Your task to perform on an android device: toggle notifications settings in the gmail app Image 0: 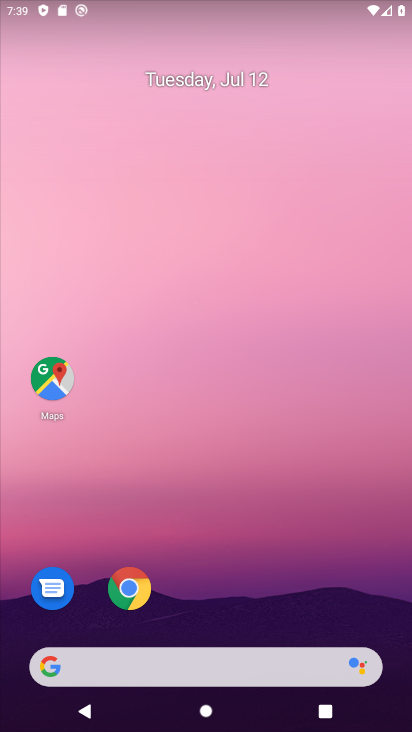
Step 0: drag from (258, 581) to (287, 90)
Your task to perform on an android device: toggle notifications settings in the gmail app Image 1: 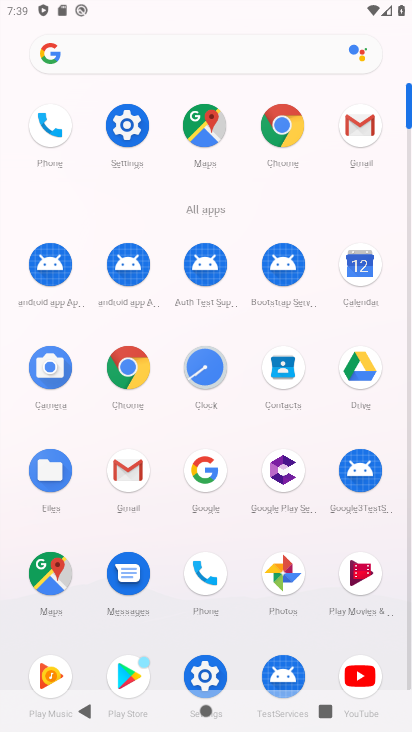
Step 1: click (366, 116)
Your task to perform on an android device: toggle notifications settings in the gmail app Image 2: 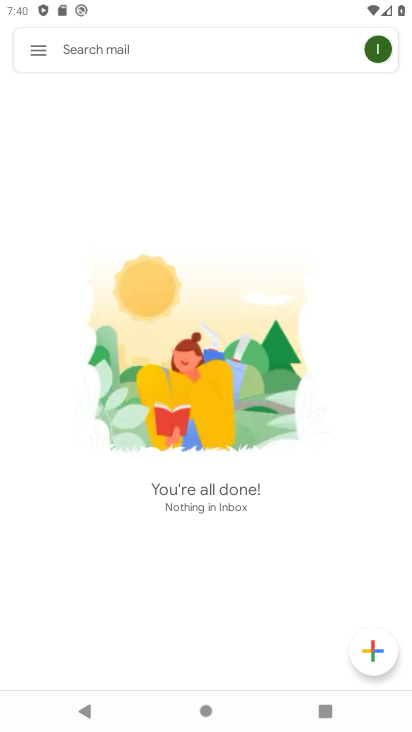
Step 2: click (36, 53)
Your task to perform on an android device: toggle notifications settings in the gmail app Image 3: 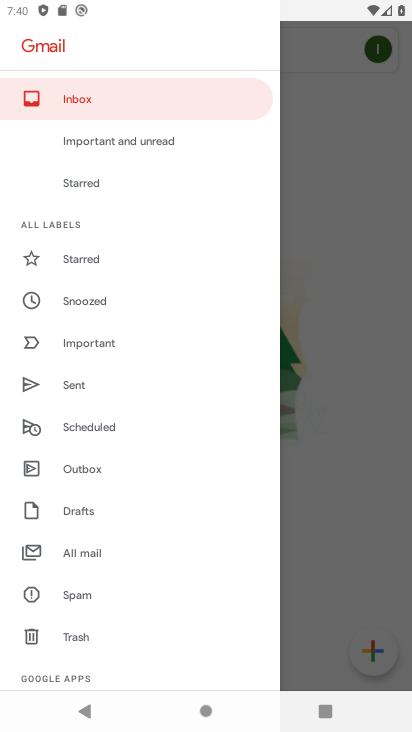
Step 3: drag from (100, 595) to (209, 125)
Your task to perform on an android device: toggle notifications settings in the gmail app Image 4: 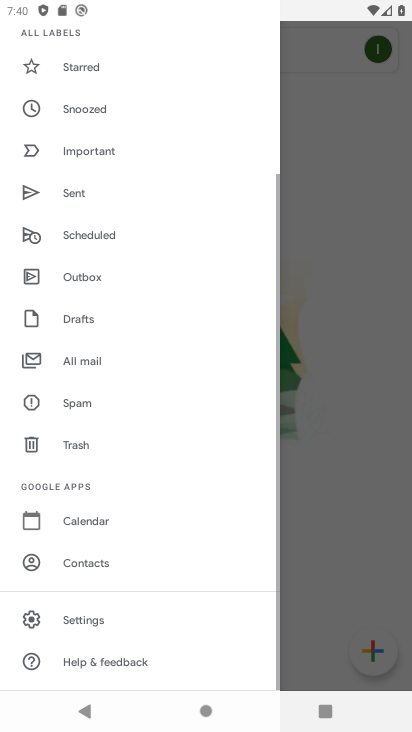
Step 4: click (73, 612)
Your task to perform on an android device: toggle notifications settings in the gmail app Image 5: 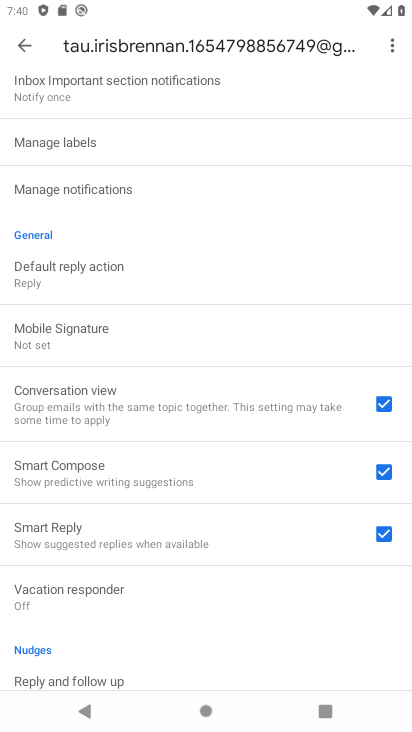
Step 5: drag from (103, 216) to (132, 477)
Your task to perform on an android device: toggle notifications settings in the gmail app Image 6: 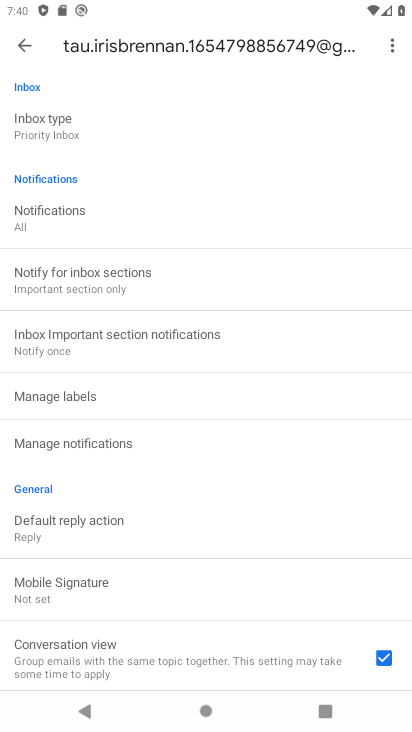
Step 6: click (90, 224)
Your task to perform on an android device: toggle notifications settings in the gmail app Image 7: 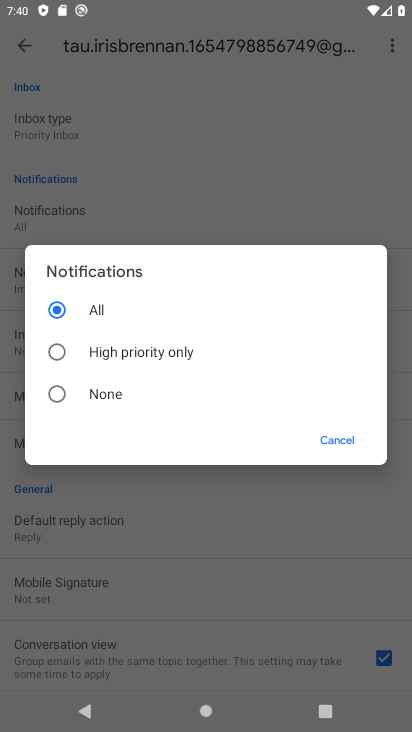
Step 7: click (87, 361)
Your task to perform on an android device: toggle notifications settings in the gmail app Image 8: 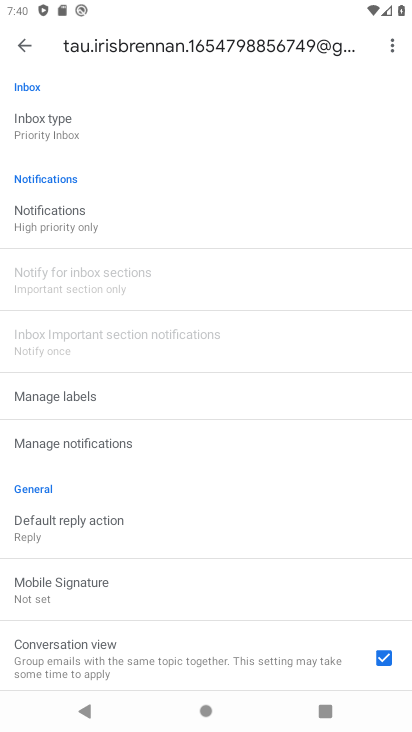
Step 8: task complete